Your task to perform on an android device: Open Chrome and go to settings Image 0: 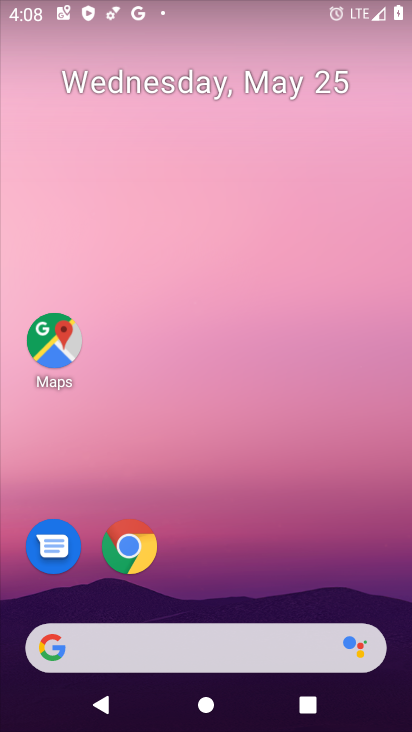
Step 0: drag from (233, 560) to (228, 108)
Your task to perform on an android device: Open Chrome and go to settings Image 1: 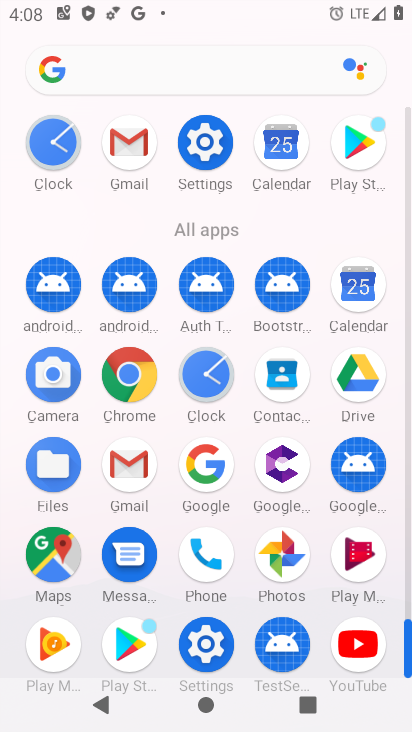
Step 1: click (131, 379)
Your task to perform on an android device: Open Chrome and go to settings Image 2: 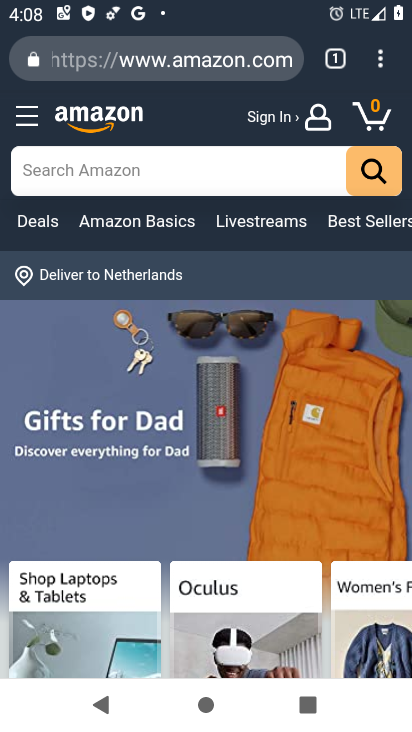
Step 2: click (379, 65)
Your task to perform on an android device: Open Chrome and go to settings Image 3: 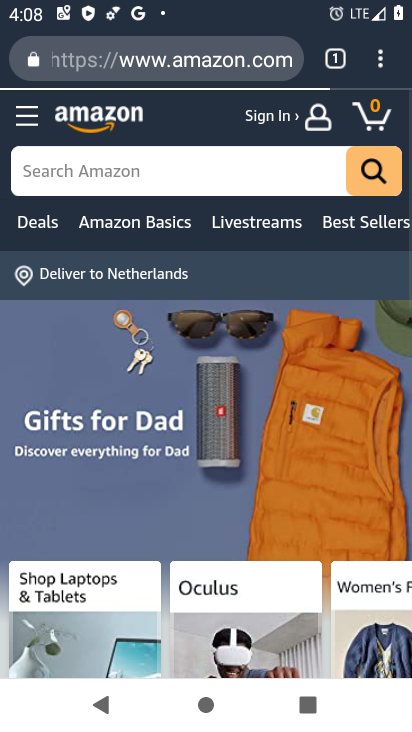
Step 3: click (379, 65)
Your task to perform on an android device: Open Chrome and go to settings Image 4: 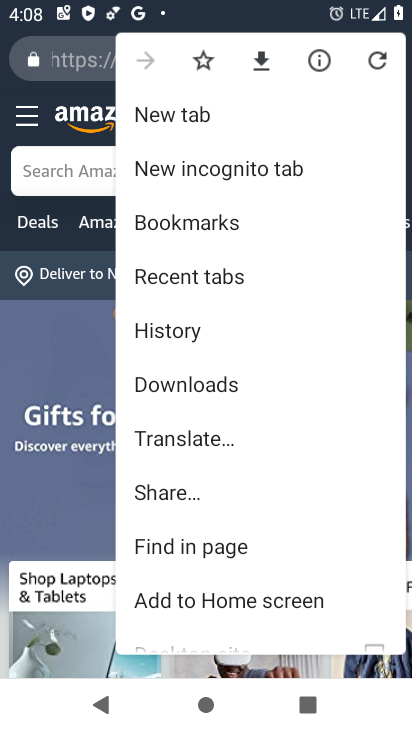
Step 4: drag from (183, 533) to (243, 202)
Your task to perform on an android device: Open Chrome and go to settings Image 5: 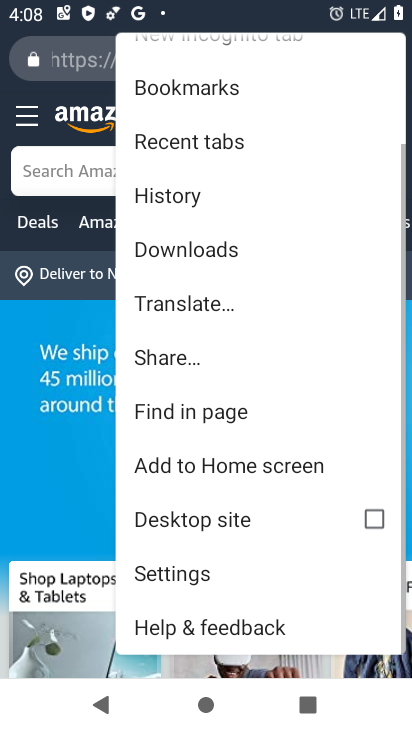
Step 5: click (171, 563)
Your task to perform on an android device: Open Chrome and go to settings Image 6: 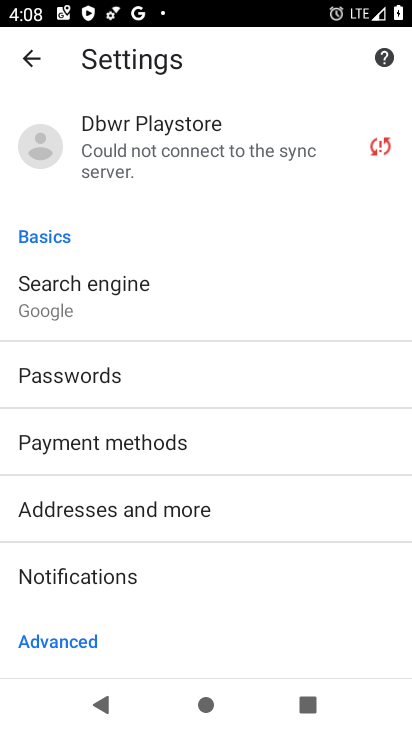
Step 6: task complete